Your task to perform on an android device: toggle notification dots Image 0: 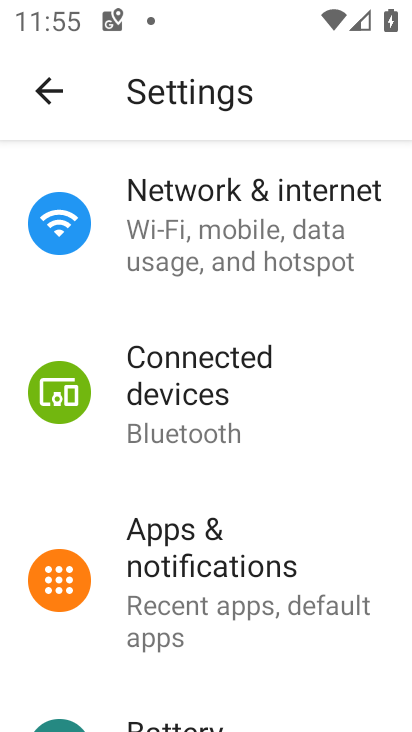
Step 0: drag from (320, 651) to (282, 334)
Your task to perform on an android device: toggle notification dots Image 1: 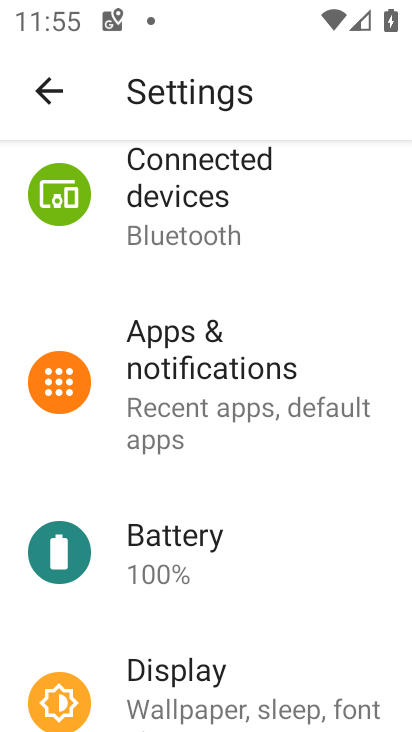
Step 1: drag from (301, 666) to (332, 463)
Your task to perform on an android device: toggle notification dots Image 2: 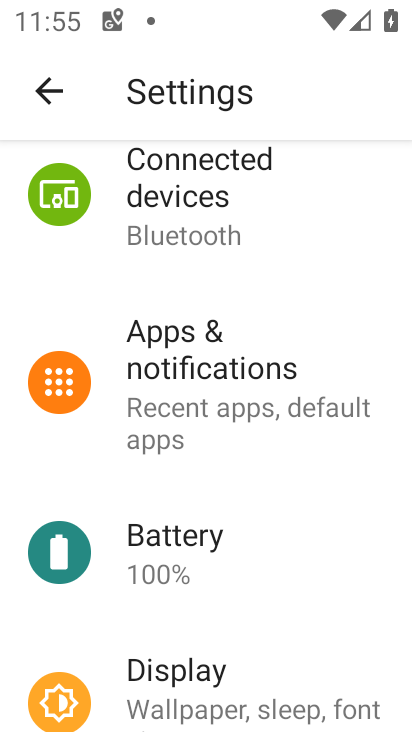
Step 2: drag from (291, 626) to (300, 281)
Your task to perform on an android device: toggle notification dots Image 3: 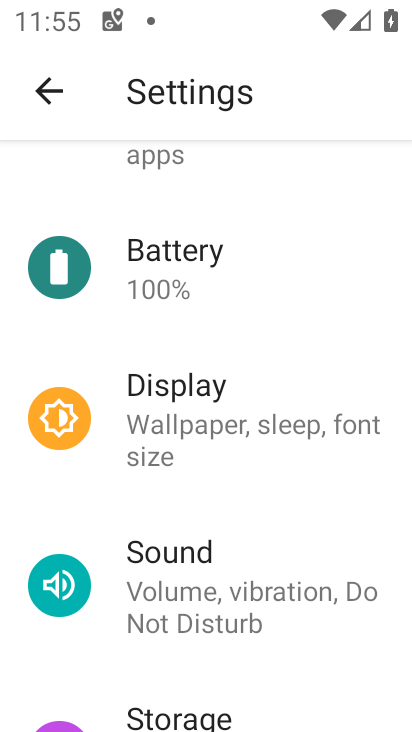
Step 3: drag from (338, 661) to (340, 383)
Your task to perform on an android device: toggle notification dots Image 4: 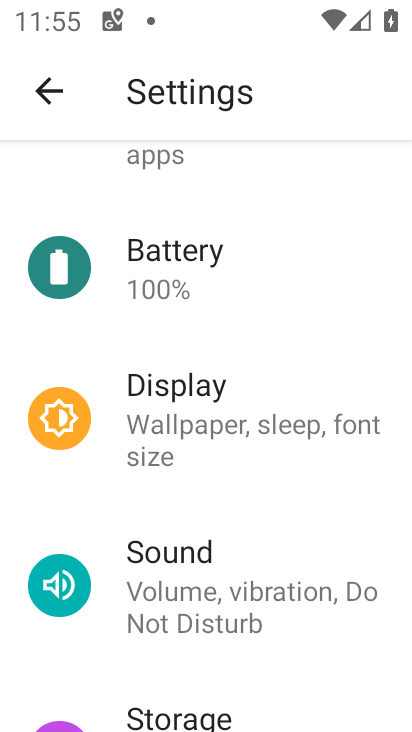
Step 4: drag from (350, 666) to (367, 311)
Your task to perform on an android device: toggle notification dots Image 5: 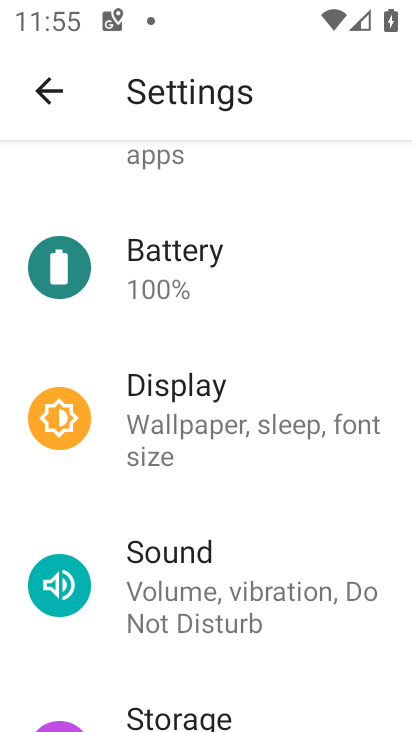
Step 5: drag from (341, 605) to (321, 229)
Your task to perform on an android device: toggle notification dots Image 6: 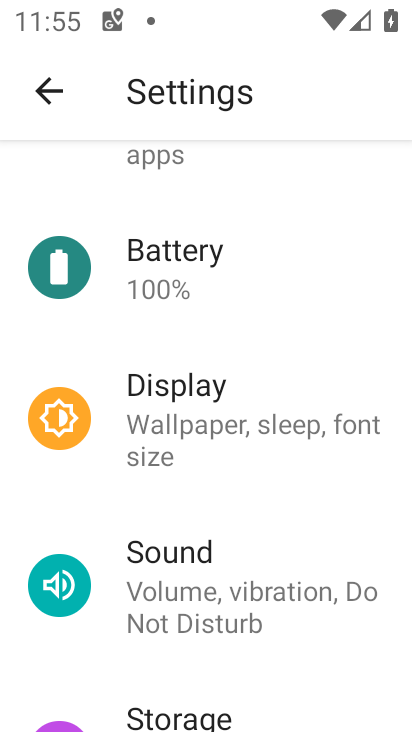
Step 6: drag from (335, 656) to (357, 451)
Your task to perform on an android device: toggle notification dots Image 7: 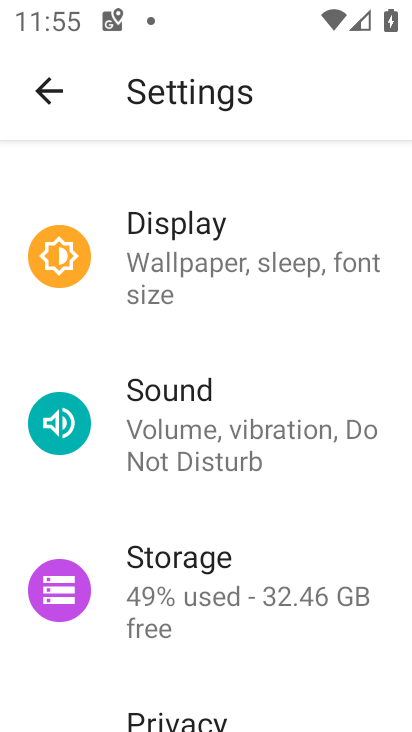
Step 7: drag from (321, 684) to (310, 402)
Your task to perform on an android device: toggle notification dots Image 8: 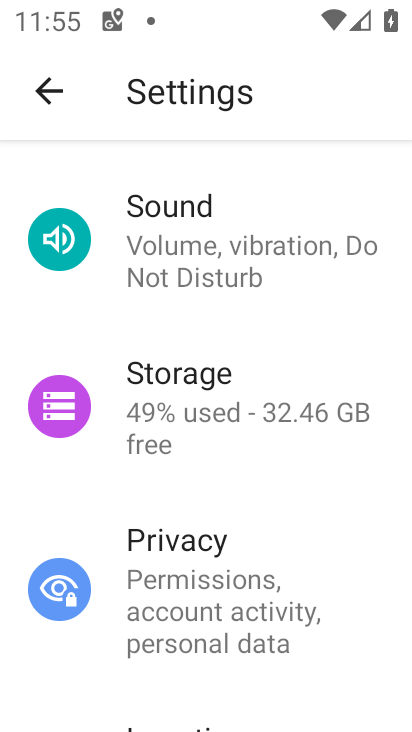
Step 8: drag from (340, 473) to (318, 253)
Your task to perform on an android device: toggle notification dots Image 9: 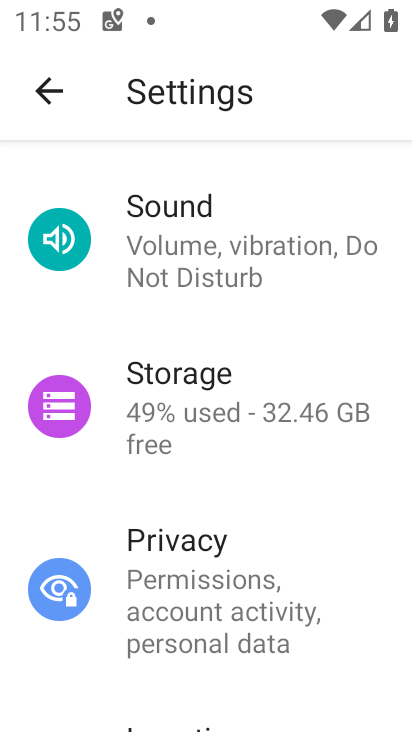
Step 9: drag from (343, 679) to (331, 323)
Your task to perform on an android device: toggle notification dots Image 10: 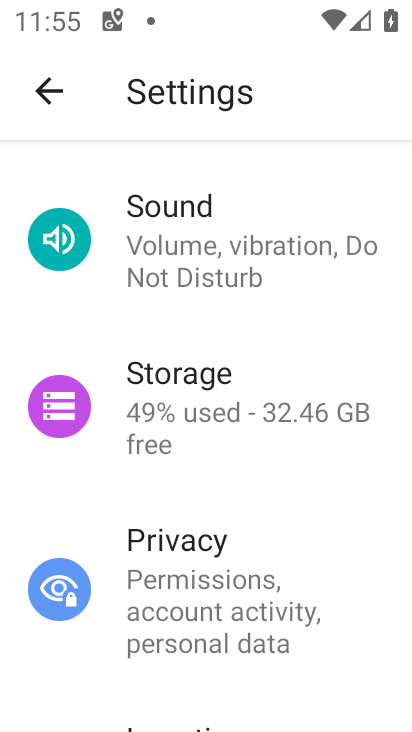
Step 10: drag from (359, 655) to (329, 260)
Your task to perform on an android device: toggle notification dots Image 11: 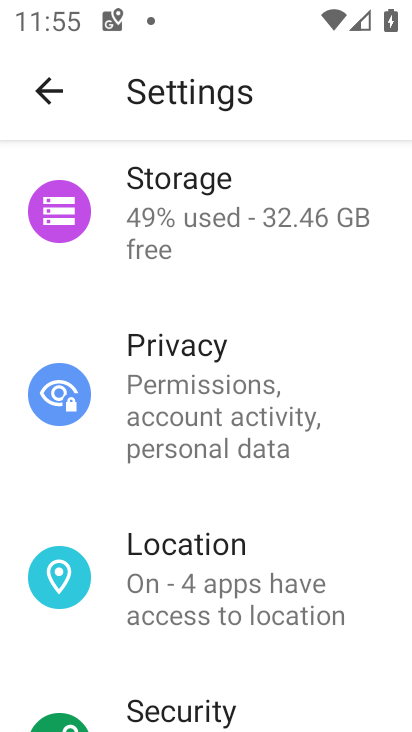
Step 11: drag from (391, 557) to (393, 309)
Your task to perform on an android device: toggle notification dots Image 12: 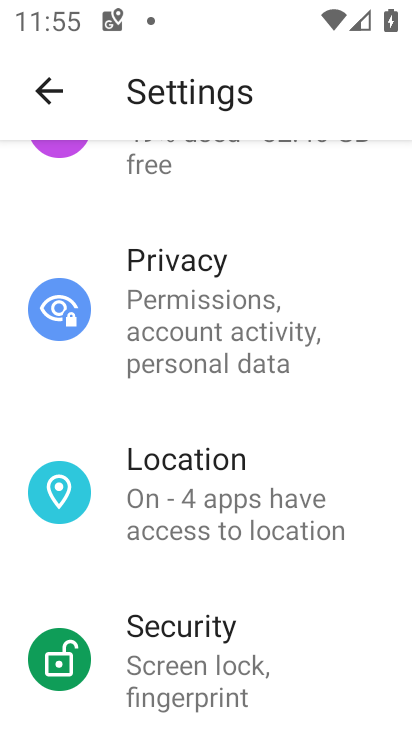
Step 12: drag from (363, 662) to (372, 369)
Your task to perform on an android device: toggle notification dots Image 13: 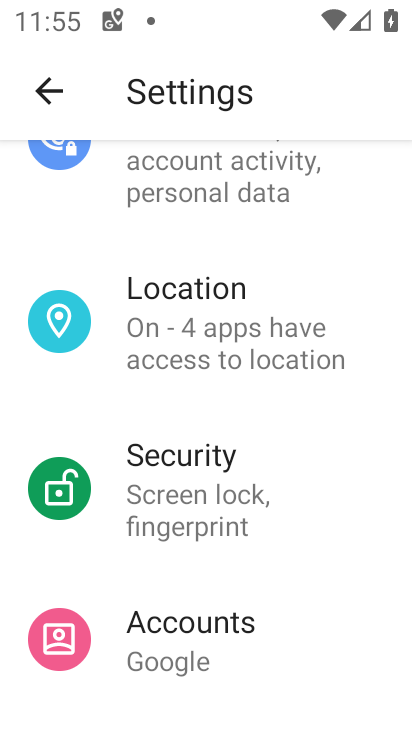
Step 13: drag from (347, 302) to (351, 529)
Your task to perform on an android device: toggle notification dots Image 14: 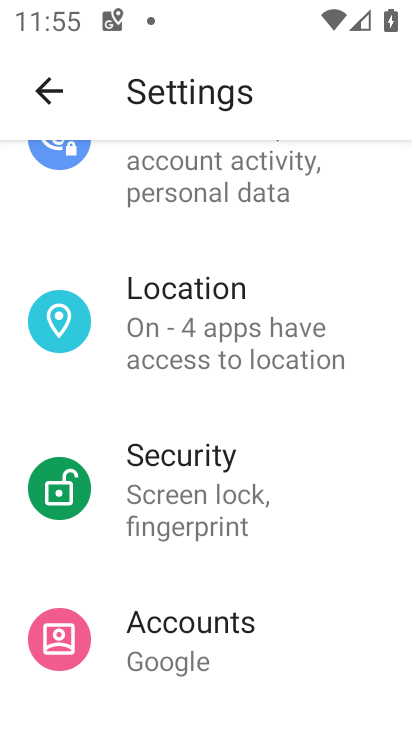
Step 14: drag from (360, 230) to (371, 570)
Your task to perform on an android device: toggle notification dots Image 15: 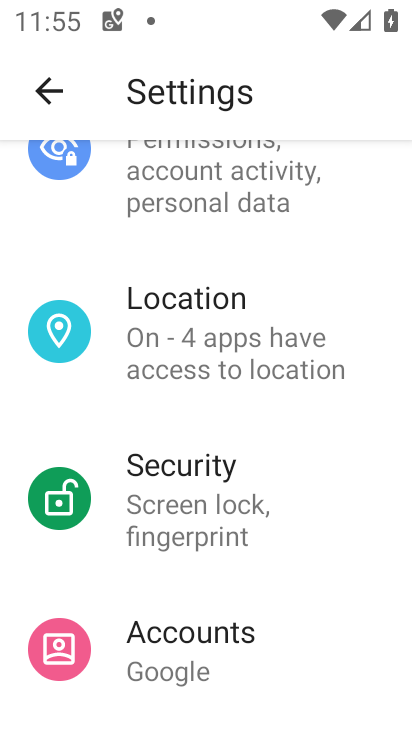
Step 15: drag from (354, 295) to (367, 692)
Your task to perform on an android device: toggle notification dots Image 16: 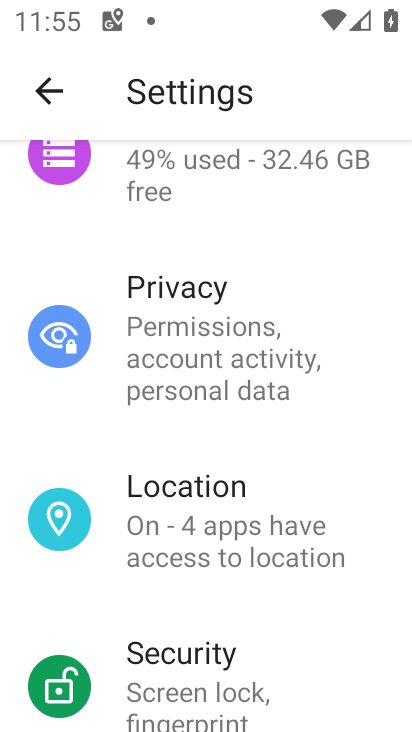
Step 16: drag from (362, 293) to (376, 612)
Your task to perform on an android device: toggle notification dots Image 17: 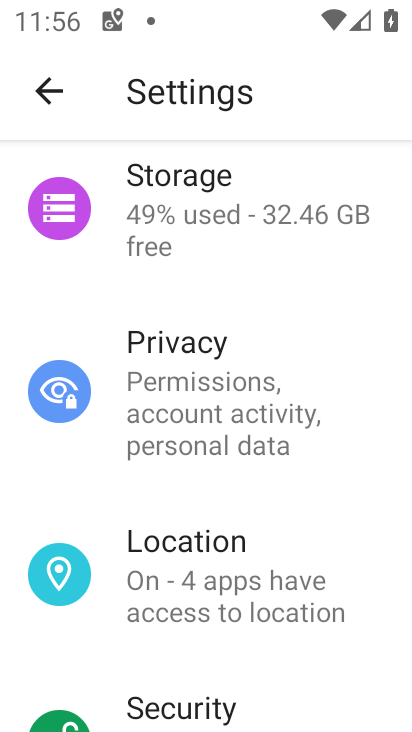
Step 17: drag from (338, 258) to (338, 549)
Your task to perform on an android device: toggle notification dots Image 18: 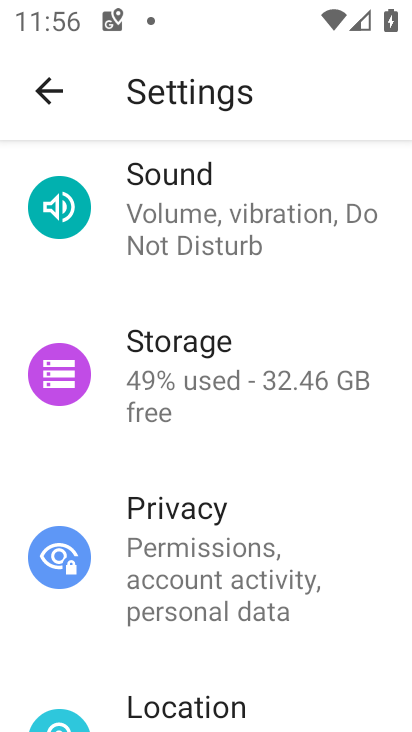
Step 18: drag from (326, 222) to (319, 482)
Your task to perform on an android device: toggle notification dots Image 19: 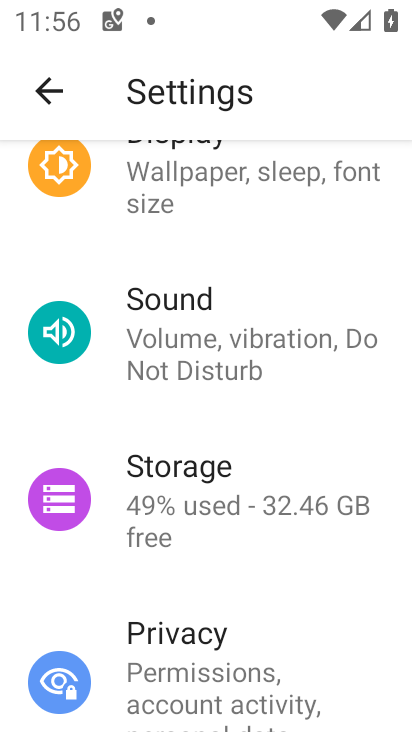
Step 19: drag from (318, 263) to (331, 518)
Your task to perform on an android device: toggle notification dots Image 20: 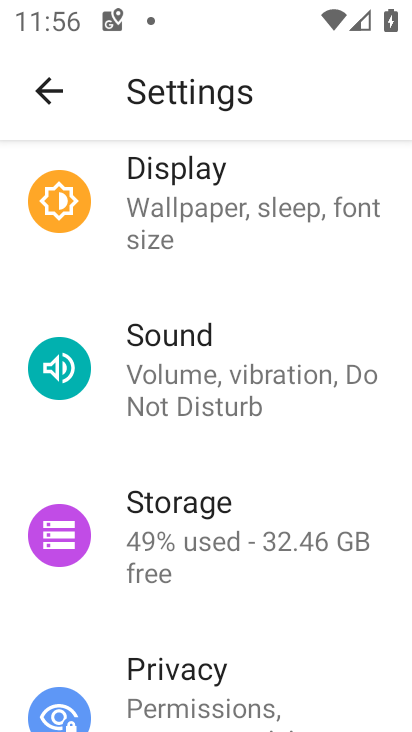
Step 20: drag from (288, 426) to (298, 689)
Your task to perform on an android device: toggle notification dots Image 21: 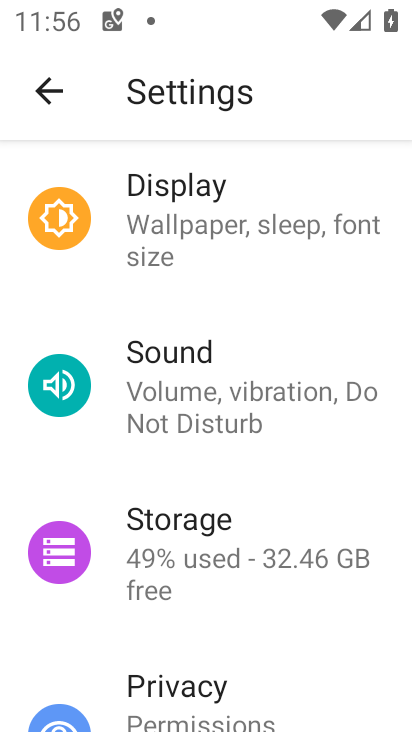
Step 21: drag from (288, 220) to (284, 685)
Your task to perform on an android device: toggle notification dots Image 22: 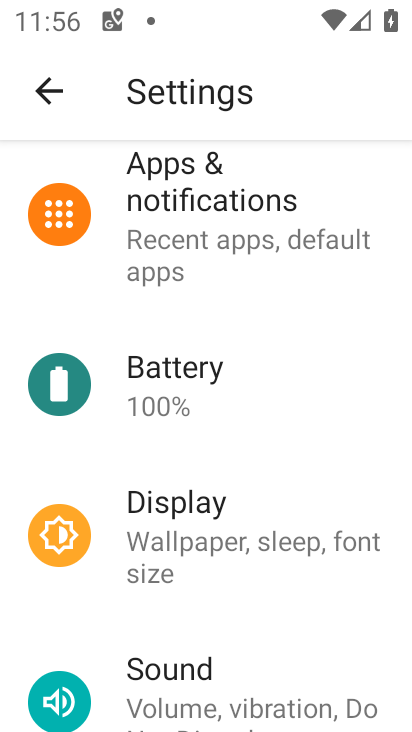
Step 22: drag from (296, 394) to (293, 470)
Your task to perform on an android device: toggle notification dots Image 23: 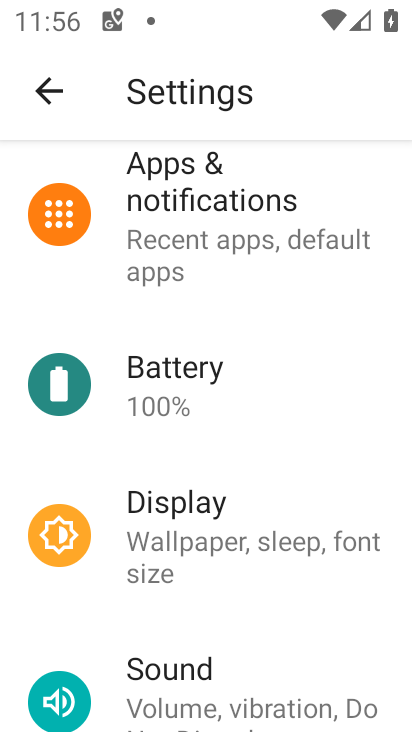
Step 23: click (172, 202)
Your task to perform on an android device: toggle notification dots Image 24: 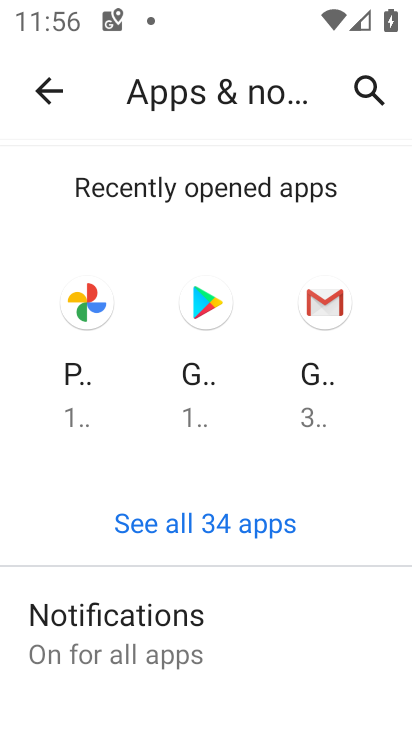
Step 24: click (90, 607)
Your task to perform on an android device: toggle notification dots Image 25: 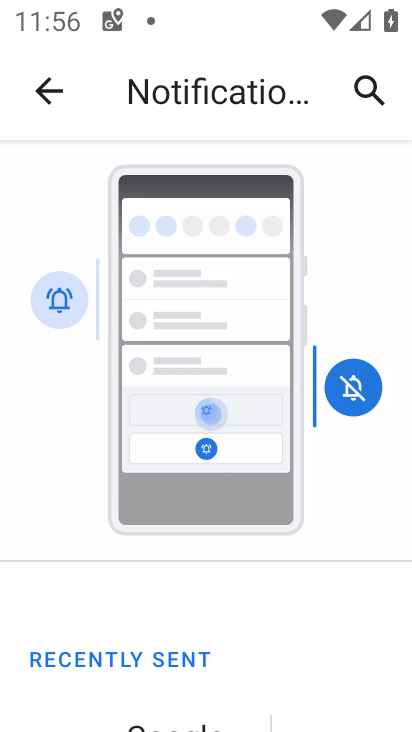
Step 25: drag from (281, 694) to (271, 365)
Your task to perform on an android device: toggle notification dots Image 26: 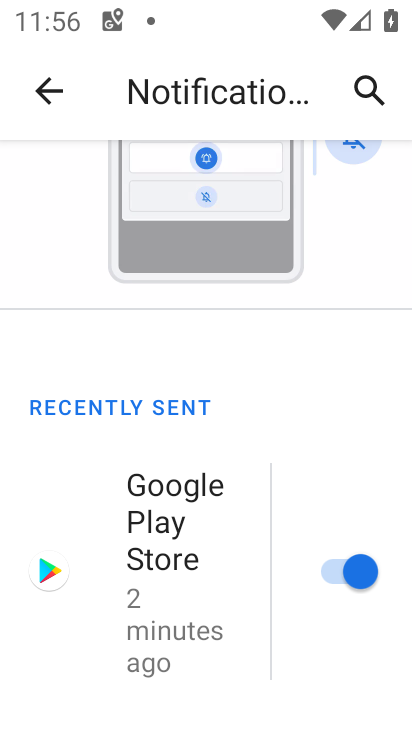
Step 26: drag from (267, 608) to (283, 239)
Your task to perform on an android device: toggle notification dots Image 27: 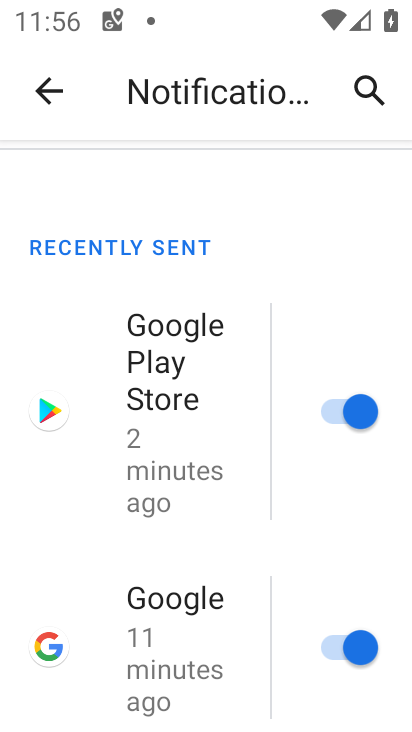
Step 27: drag from (262, 662) to (248, 354)
Your task to perform on an android device: toggle notification dots Image 28: 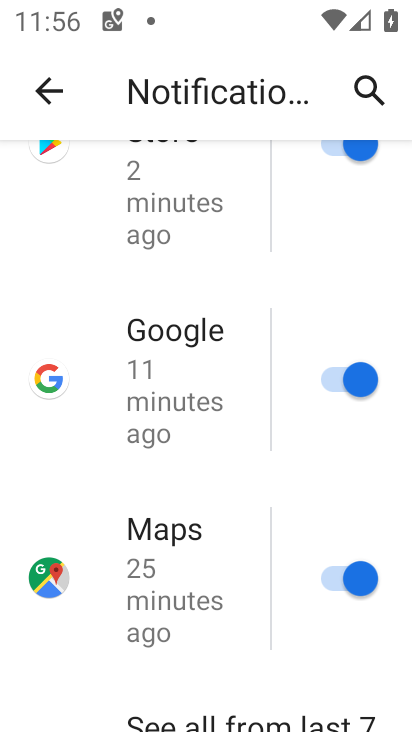
Step 28: drag from (260, 641) to (273, 292)
Your task to perform on an android device: toggle notification dots Image 29: 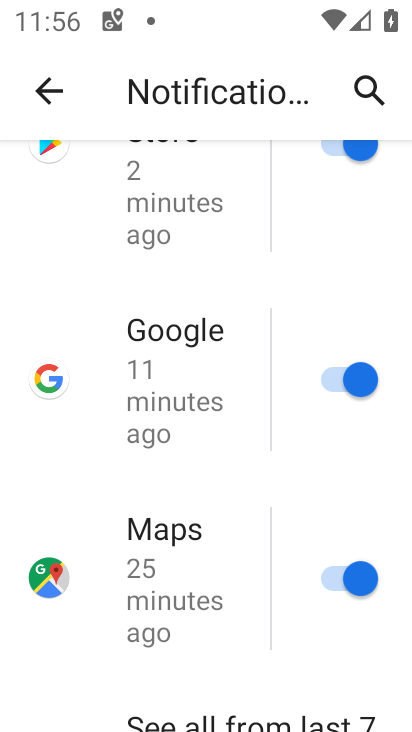
Step 29: drag from (281, 635) to (313, 325)
Your task to perform on an android device: toggle notification dots Image 30: 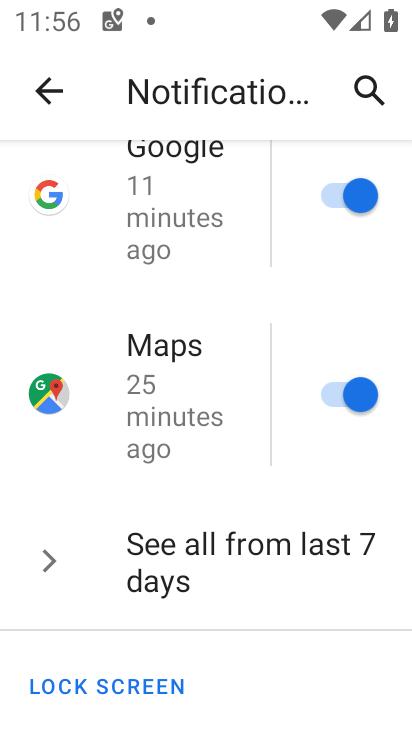
Step 30: drag from (292, 664) to (282, 338)
Your task to perform on an android device: toggle notification dots Image 31: 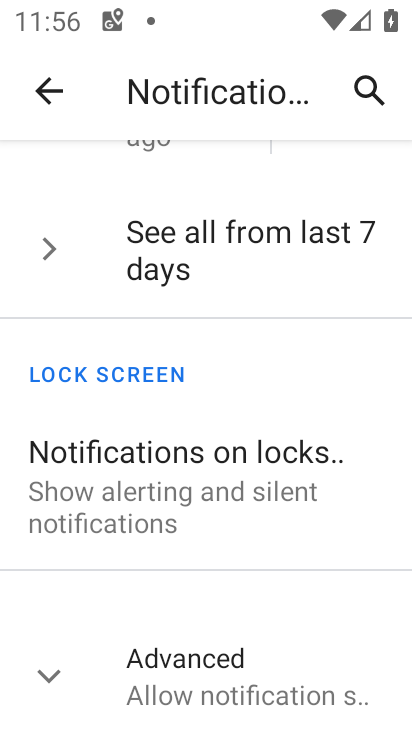
Step 31: drag from (306, 629) to (321, 369)
Your task to perform on an android device: toggle notification dots Image 32: 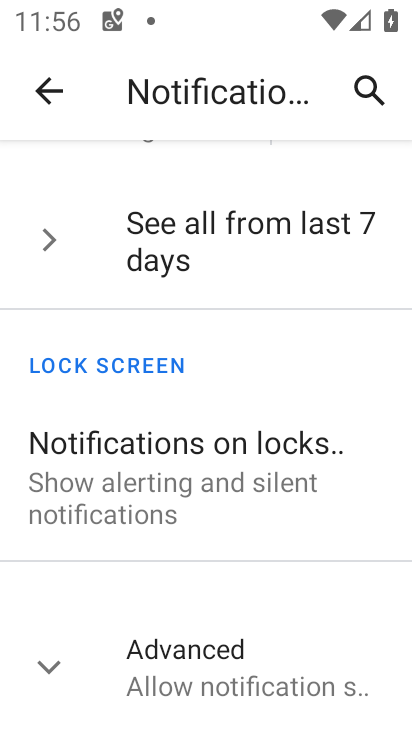
Step 32: drag from (329, 628) to (332, 329)
Your task to perform on an android device: toggle notification dots Image 33: 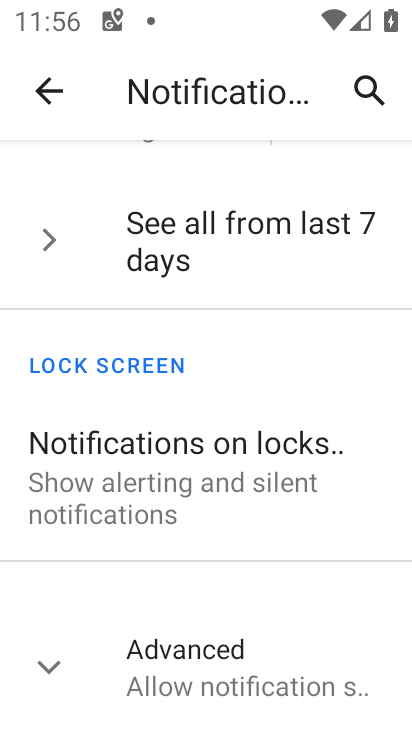
Step 33: drag from (321, 615) to (320, 361)
Your task to perform on an android device: toggle notification dots Image 34: 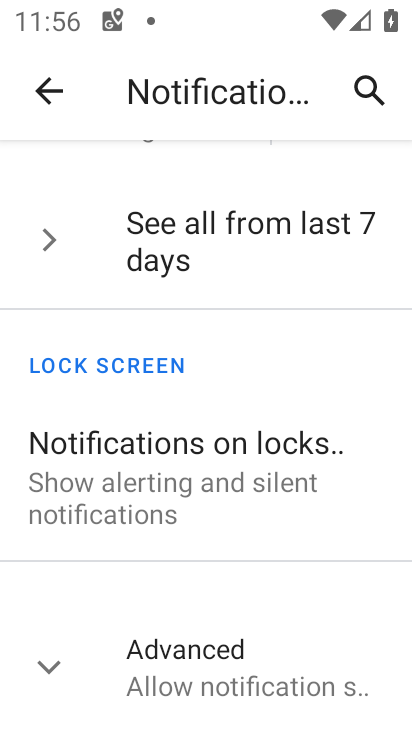
Step 34: click (43, 674)
Your task to perform on an android device: toggle notification dots Image 35: 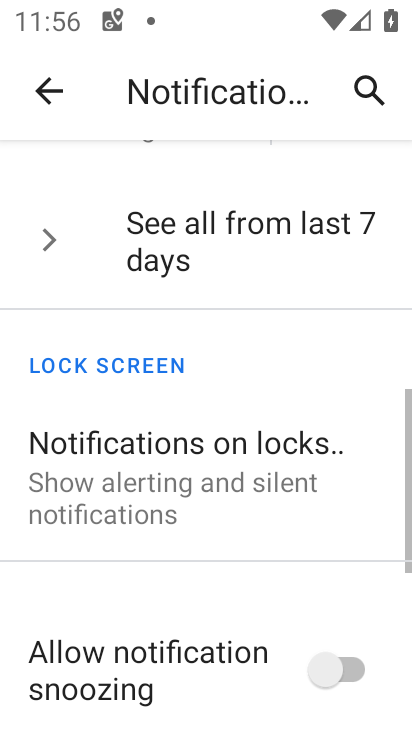
Step 35: drag from (264, 694) to (280, 299)
Your task to perform on an android device: toggle notification dots Image 36: 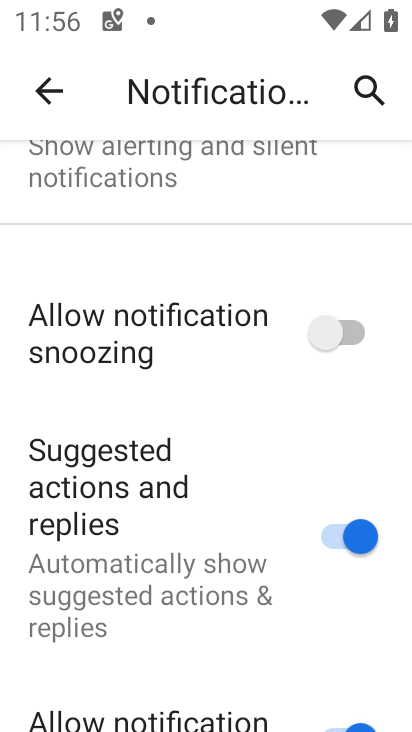
Step 36: drag from (230, 641) to (236, 431)
Your task to perform on an android device: toggle notification dots Image 37: 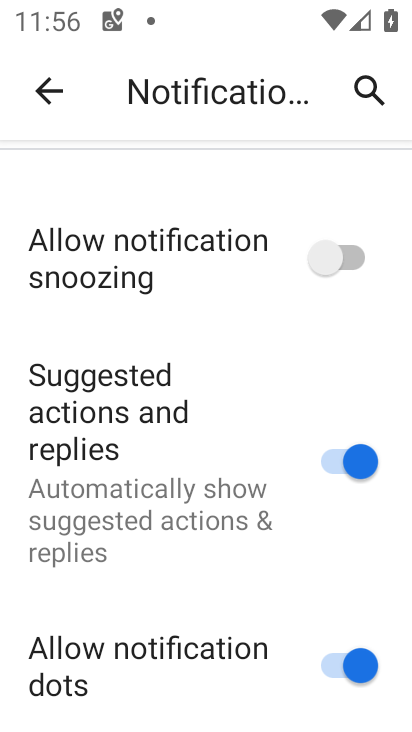
Step 37: drag from (248, 694) to (252, 400)
Your task to perform on an android device: toggle notification dots Image 38: 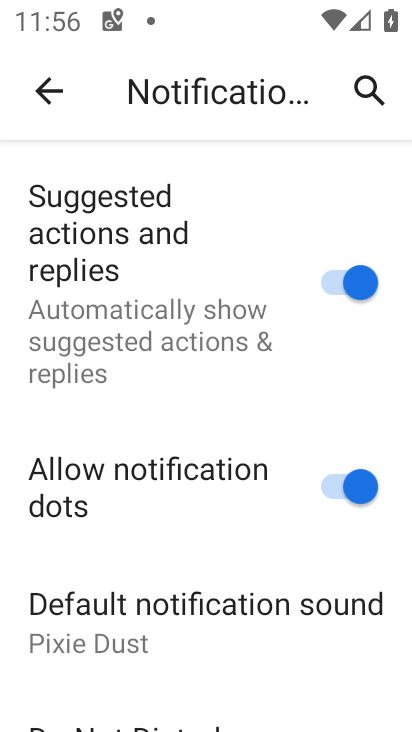
Step 38: drag from (226, 645) to (219, 387)
Your task to perform on an android device: toggle notification dots Image 39: 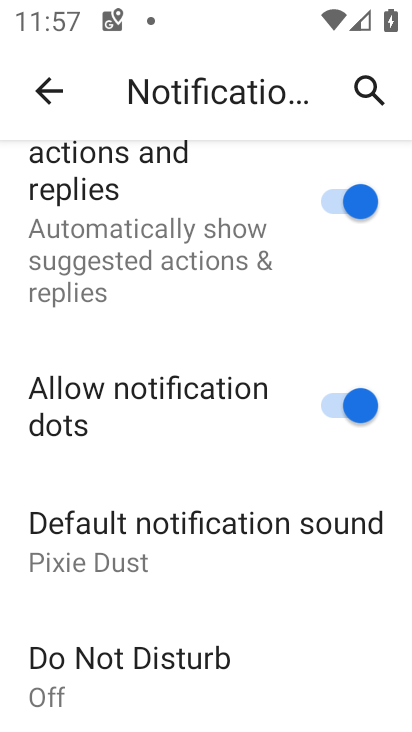
Step 39: click (333, 402)
Your task to perform on an android device: toggle notification dots Image 40: 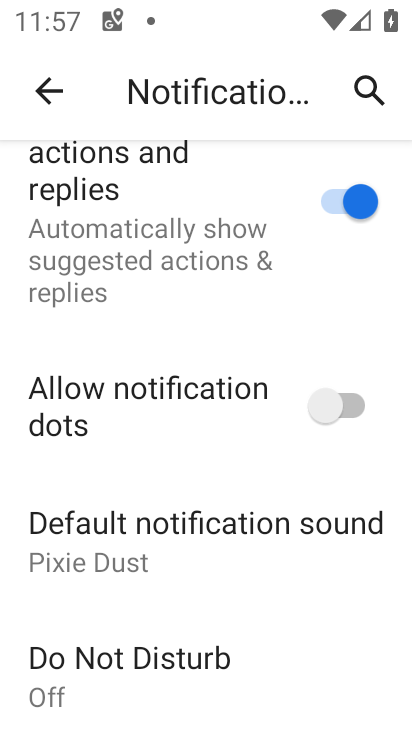
Step 40: task complete